Your task to perform on an android device: uninstall "Lyft - Rideshare, Bikes, Scooters & Transit" Image 0: 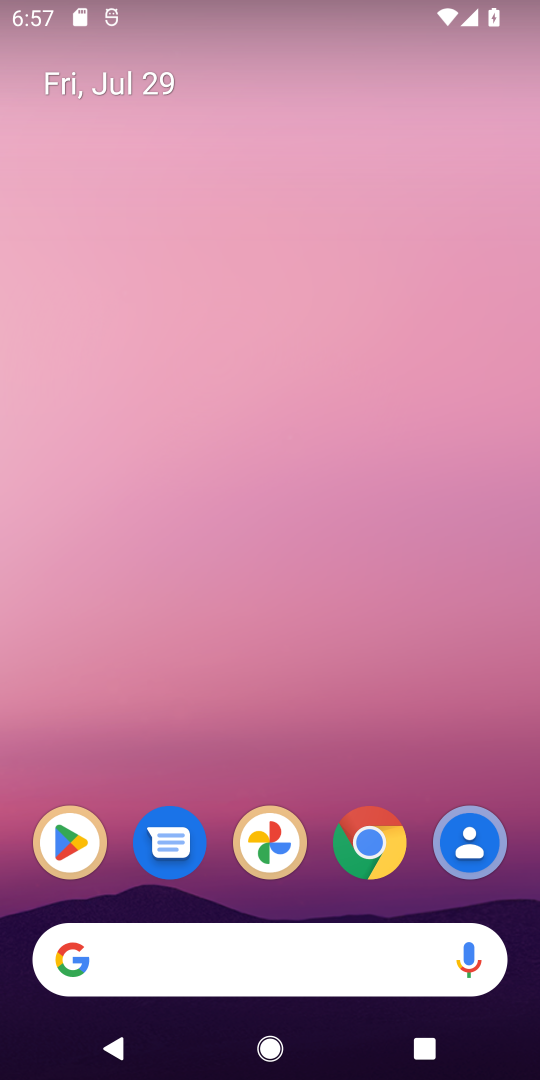
Step 0: drag from (391, 977) to (268, 276)
Your task to perform on an android device: uninstall "Lyft - Rideshare, Bikes, Scooters & Transit" Image 1: 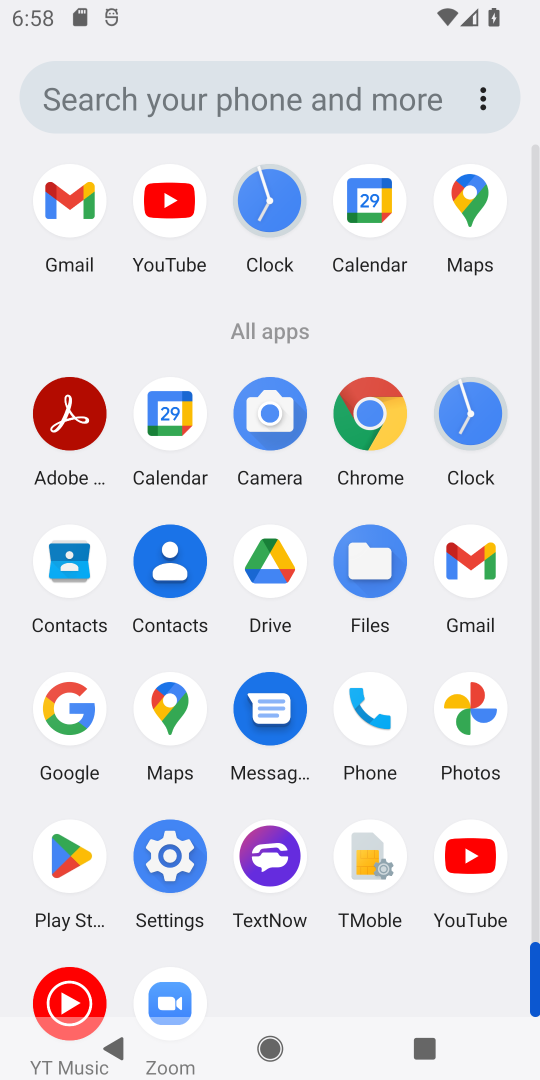
Step 1: drag from (325, 822) to (294, 603)
Your task to perform on an android device: uninstall "Lyft - Rideshare, Bikes, Scooters & Transit" Image 2: 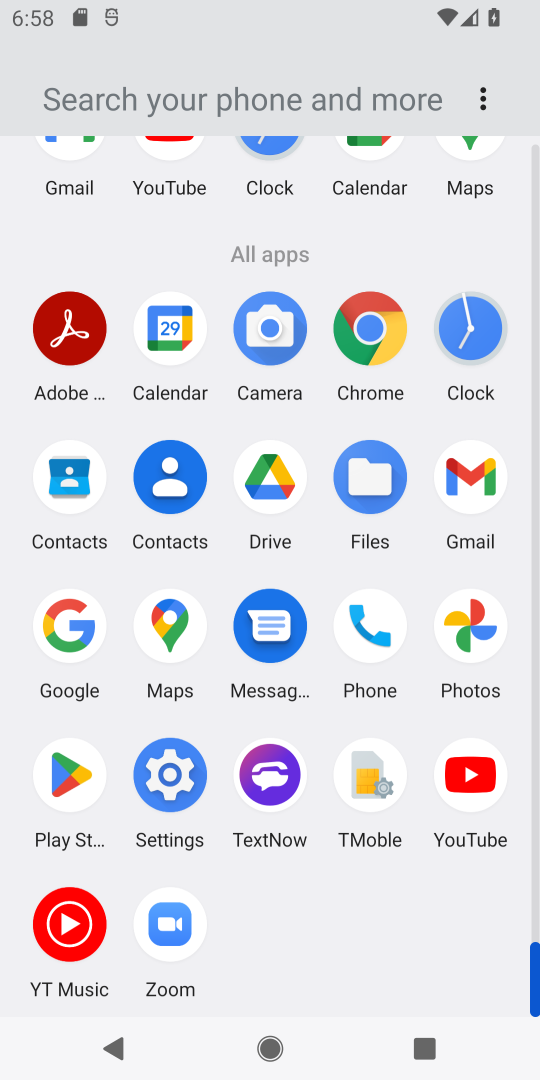
Step 2: drag from (320, 853) to (319, 670)
Your task to perform on an android device: uninstall "Lyft - Rideshare, Bikes, Scooters & Transit" Image 3: 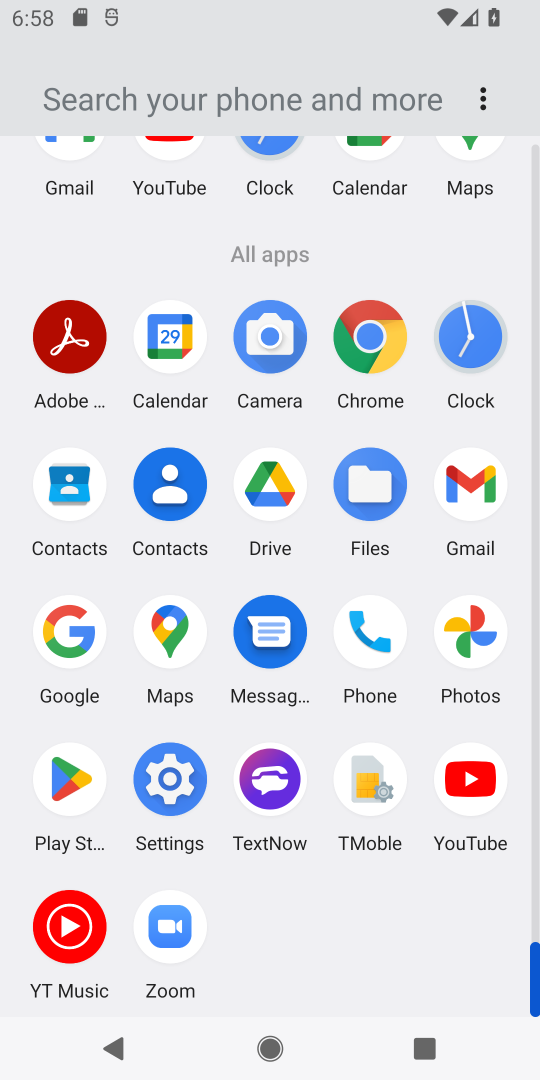
Step 3: click (70, 788)
Your task to perform on an android device: uninstall "Lyft - Rideshare, Bikes, Scooters & Transit" Image 4: 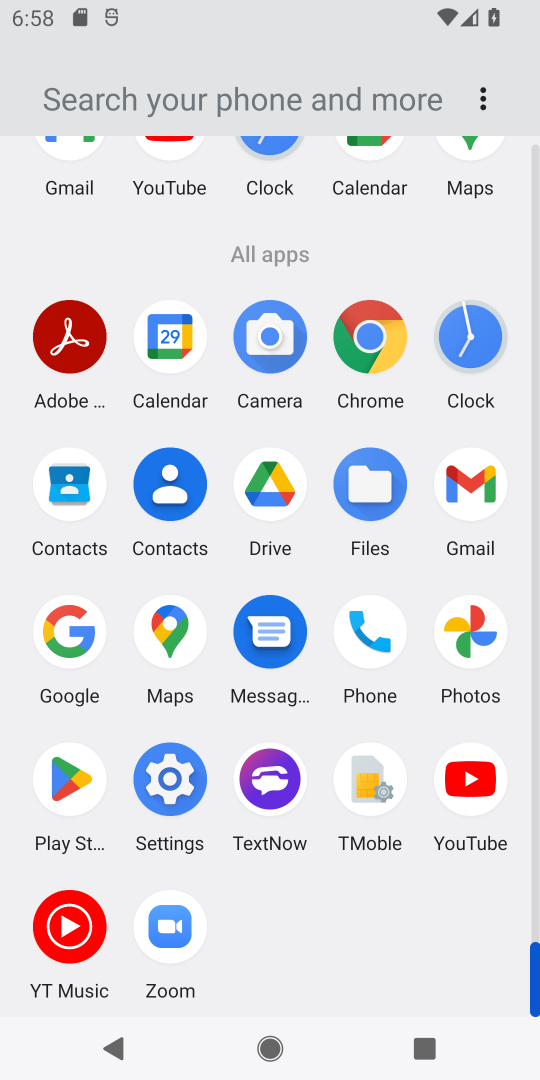
Step 4: click (70, 788)
Your task to perform on an android device: uninstall "Lyft - Rideshare, Bikes, Scooters & Transit" Image 5: 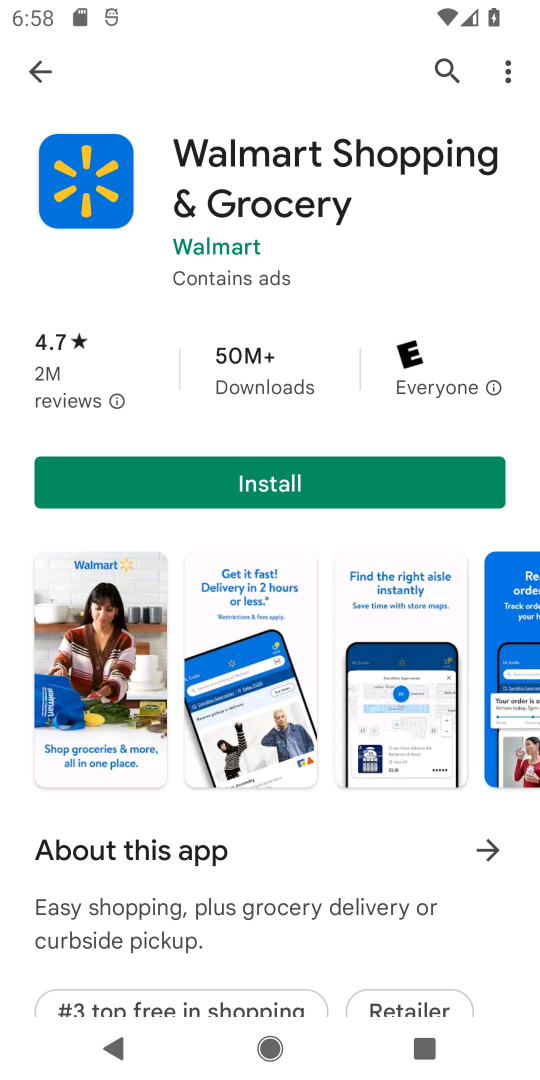
Step 5: click (92, 781)
Your task to perform on an android device: uninstall "Lyft - Rideshare, Bikes, Scooters & Transit" Image 6: 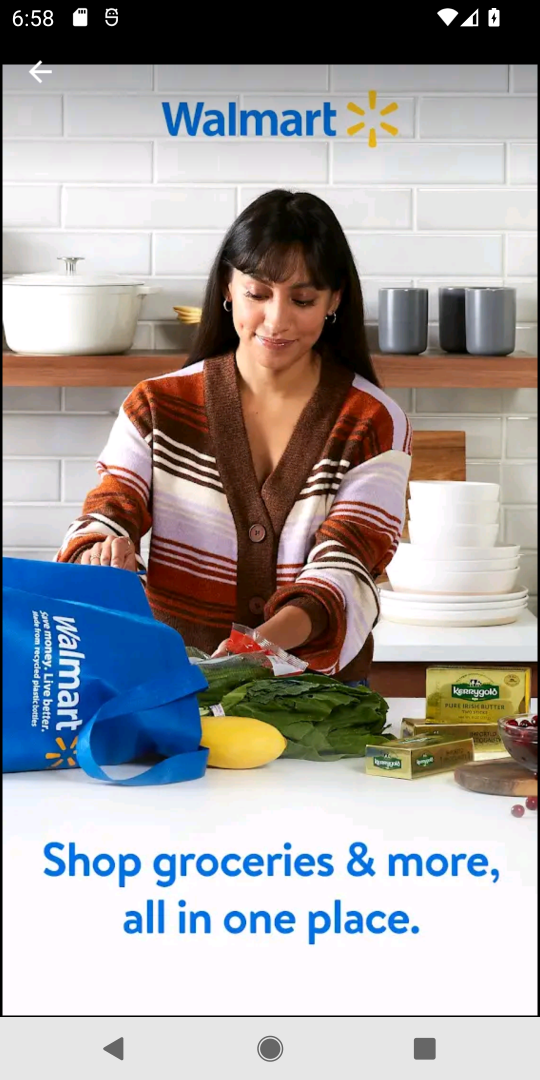
Step 6: click (29, 88)
Your task to perform on an android device: uninstall "Lyft - Rideshare, Bikes, Scooters & Transit" Image 7: 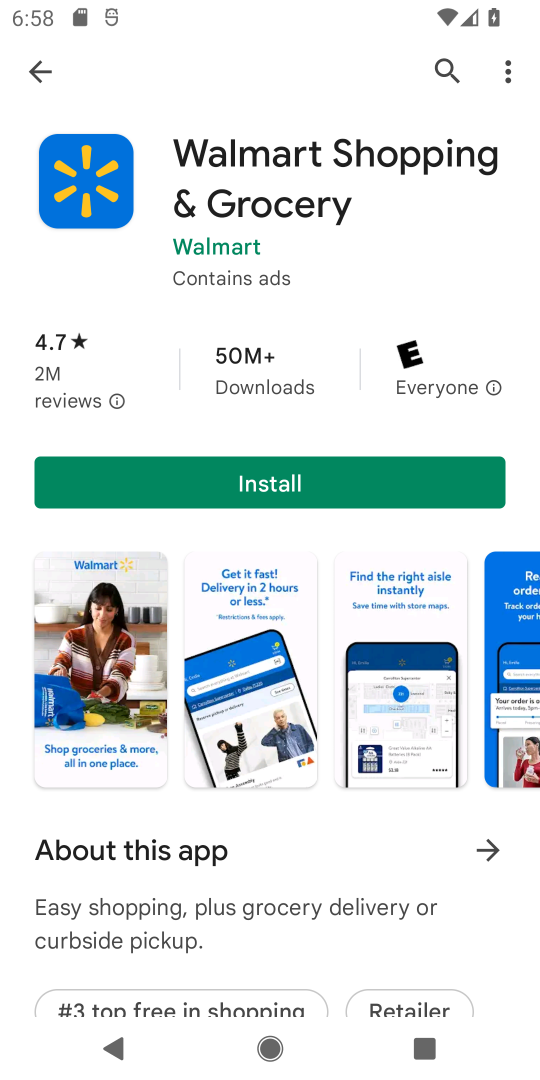
Step 7: click (70, 88)
Your task to perform on an android device: uninstall "Lyft - Rideshare, Bikes, Scooters & Transit" Image 8: 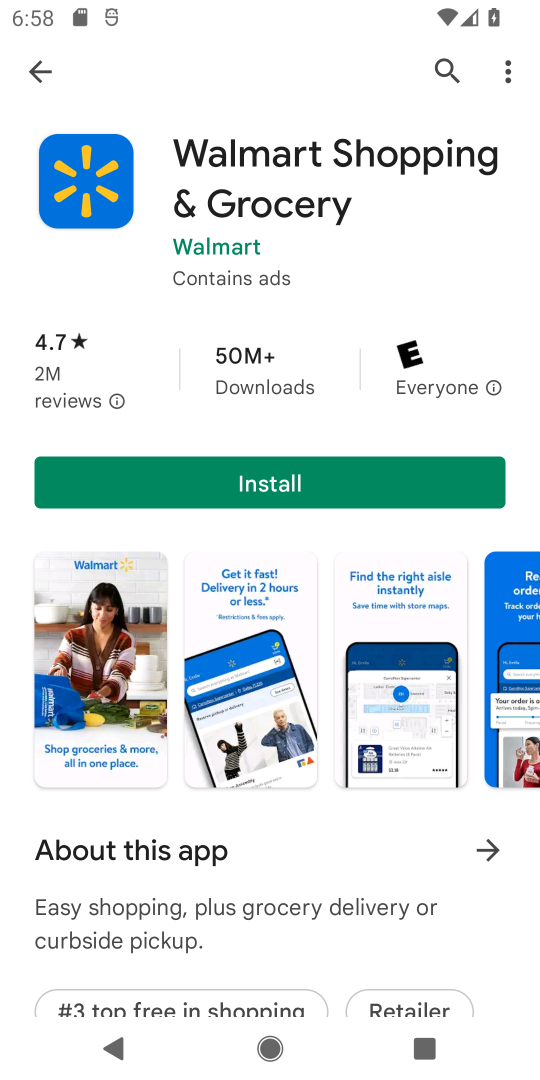
Step 8: click (23, 51)
Your task to perform on an android device: uninstall "Lyft - Rideshare, Bikes, Scooters & Transit" Image 9: 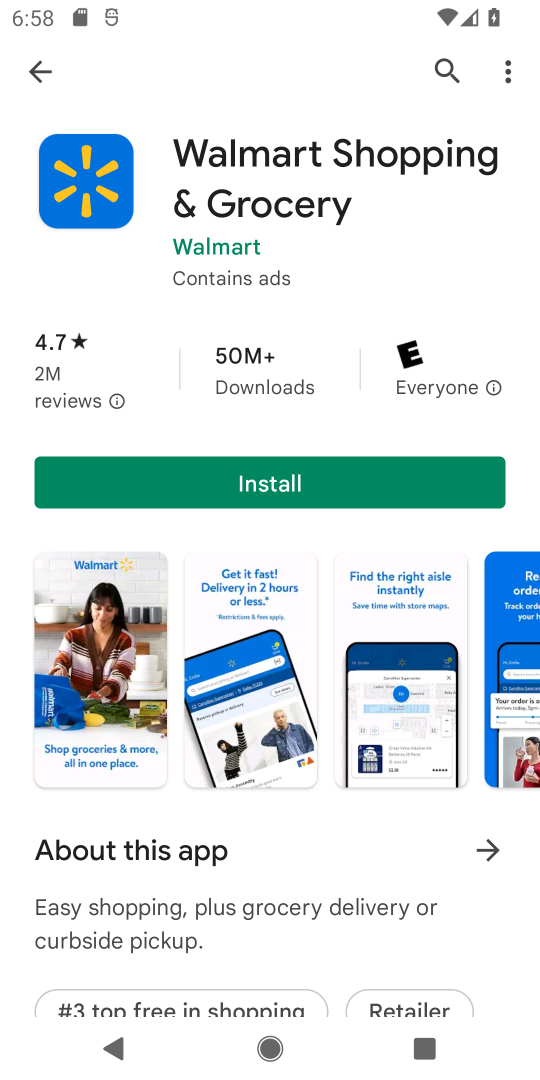
Step 9: click (24, 45)
Your task to perform on an android device: uninstall "Lyft - Rideshare, Bikes, Scooters & Transit" Image 10: 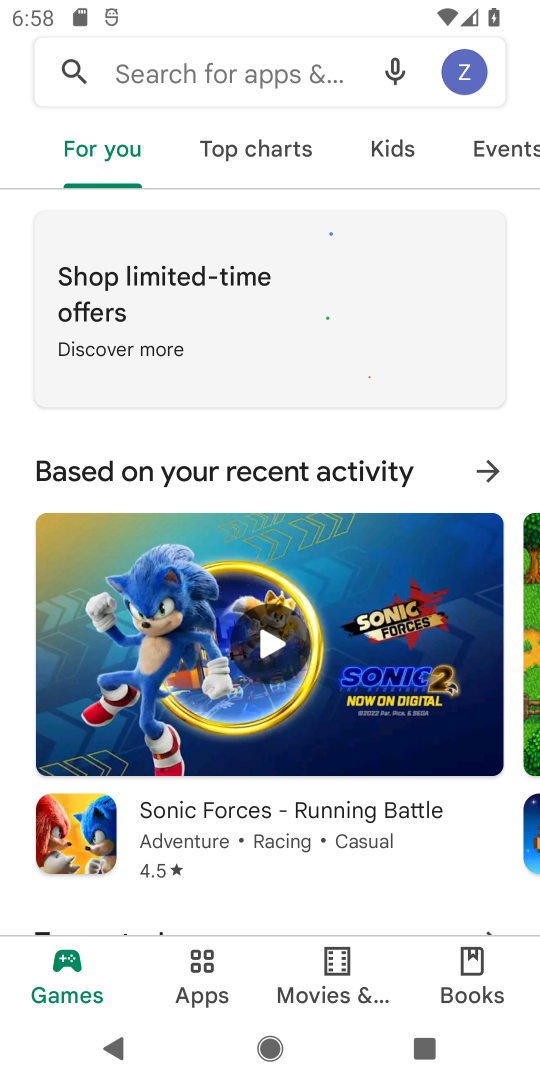
Step 10: click (37, 63)
Your task to perform on an android device: uninstall "Lyft - Rideshare, Bikes, Scooters & Transit" Image 11: 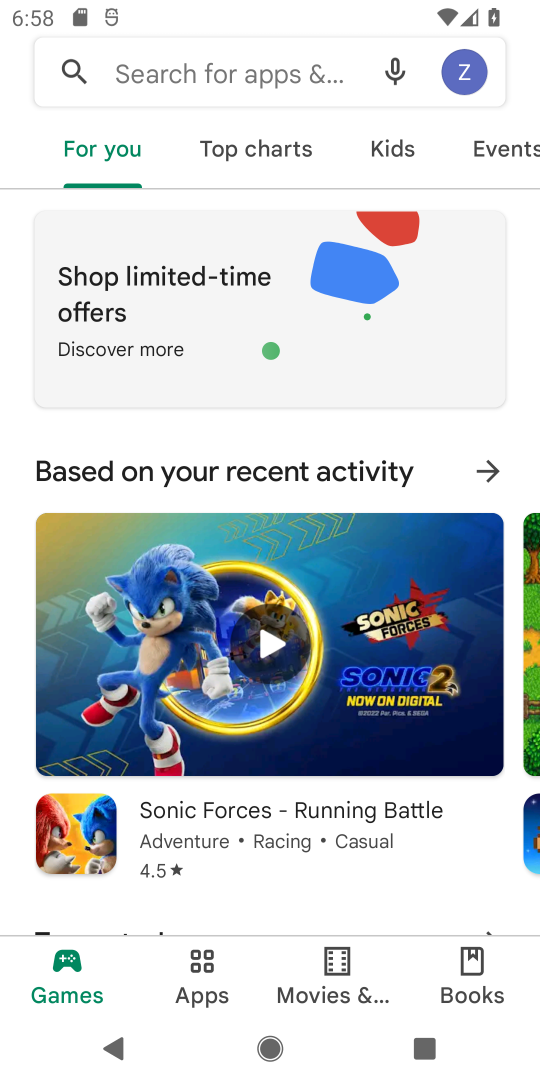
Step 11: click (37, 58)
Your task to perform on an android device: uninstall "Lyft - Rideshare, Bikes, Scooters & Transit" Image 12: 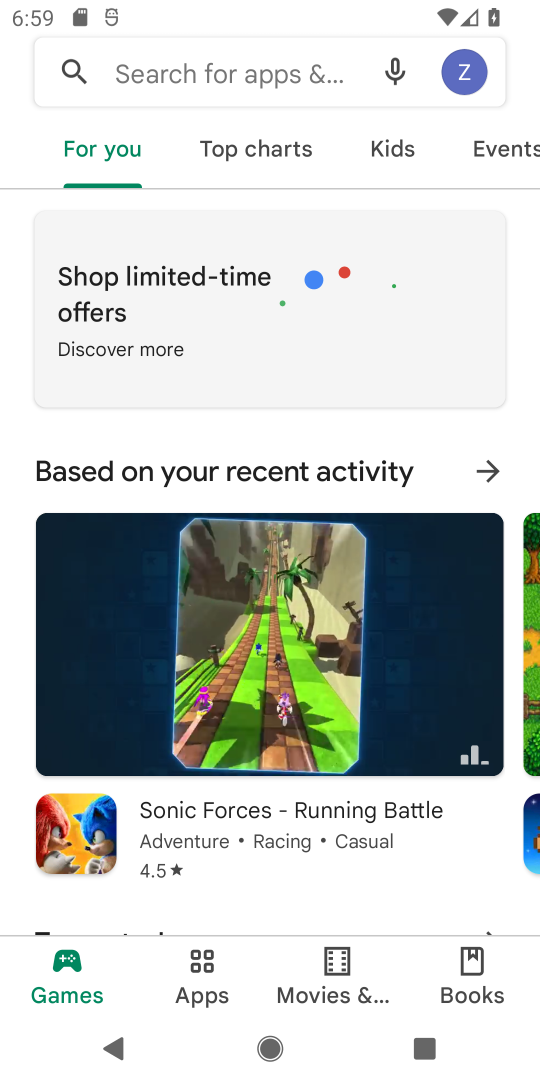
Step 12: click (187, 83)
Your task to perform on an android device: uninstall "Lyft - Rideshare, Bikes, Scooters & Transit" Image 13: 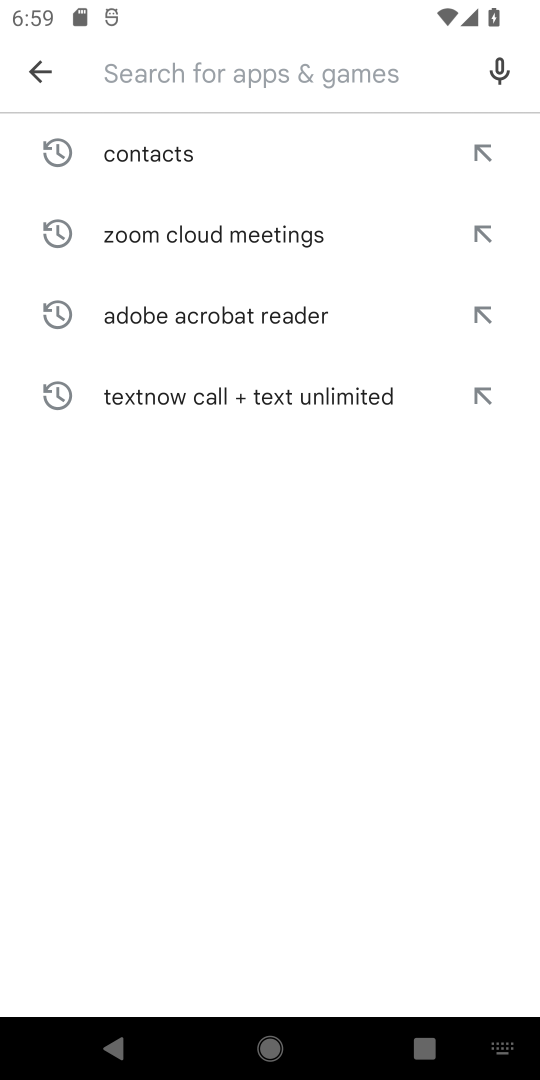
Step 13: type "lyft - rideshree, bikes, scooters & transit"
Your task to perform on an android device: uninstall "Lyft - Rideshare, Bikes, Scooters & Transit" Image 14: 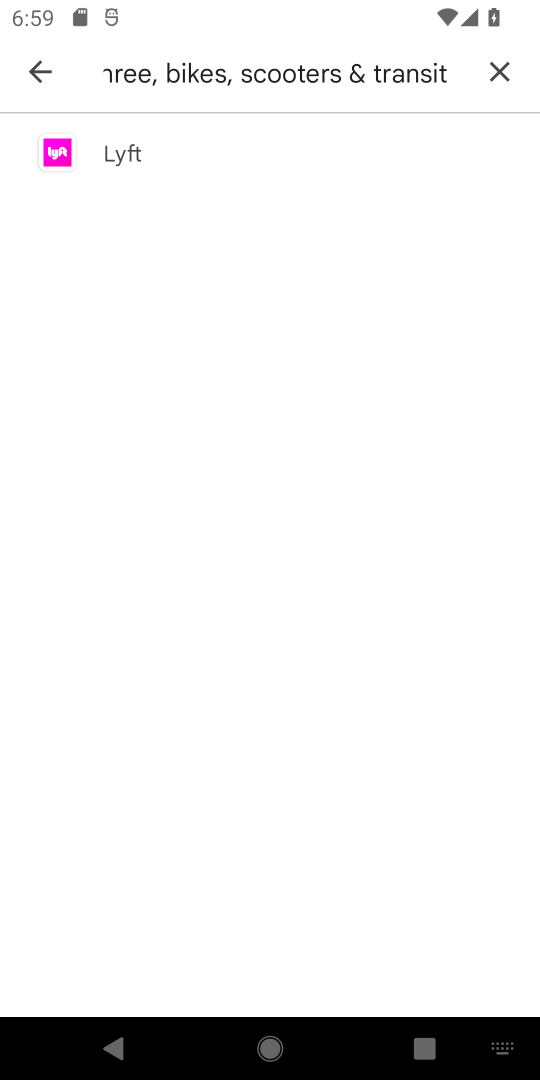
Step 14: click (98, 151)
Your task to perform on an android device: uninstall "Lyft - Rideshare, Bikes, Scooters & Transit" Image 15: 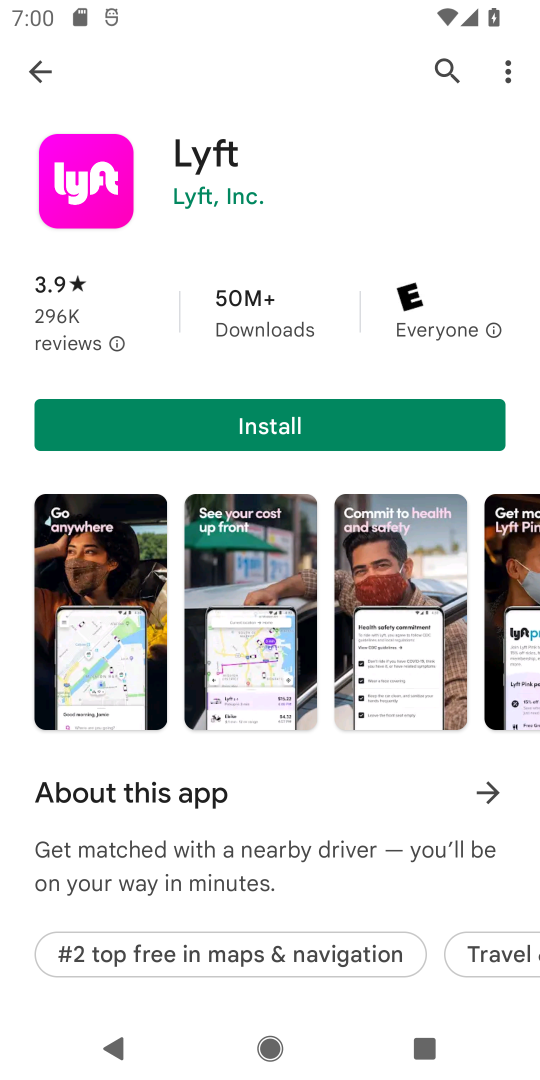
Step 15: click (265, 430)
Your task to perform on an android device: uninstall "Lyft - Rideshare, Bikes, Scooters & Transit" Image 16: 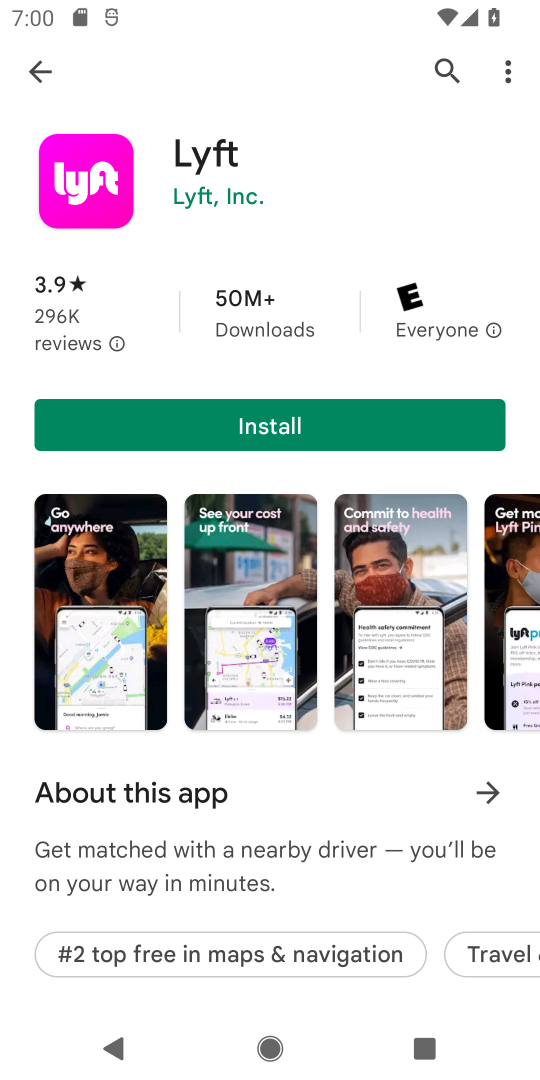
Step 16: click (270, 438)
Your task to perform on an android device: uninstall "Lyft - Rideshare, Bikes, Scooters & Transit" Image 17: 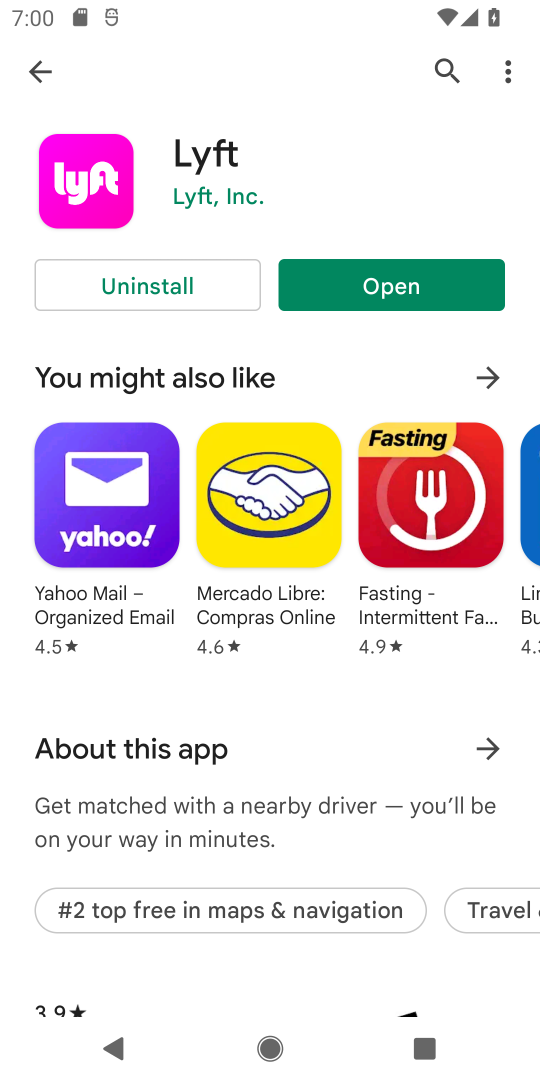
Step 17: click (362, 284)
Your task to perform on an android device: uninstall "Lyft - Rideshare, Bikes, Scooters & Transit" Image 18: 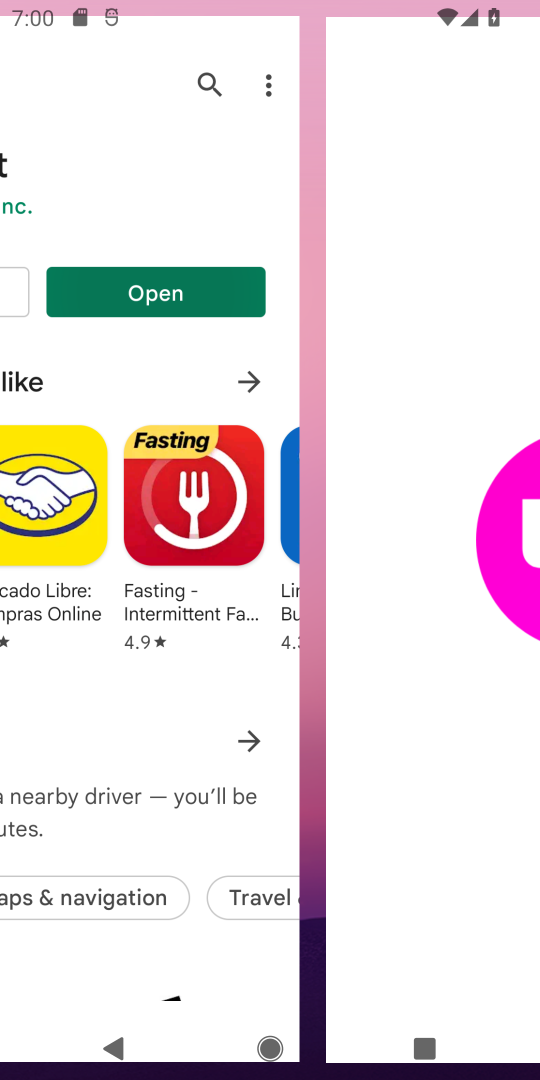
Step 18: click (216, 303)
Your task to perform on an android device: uninstall "Lyft - Rideshare, Bikes, Scooters & Transit" Image 19: 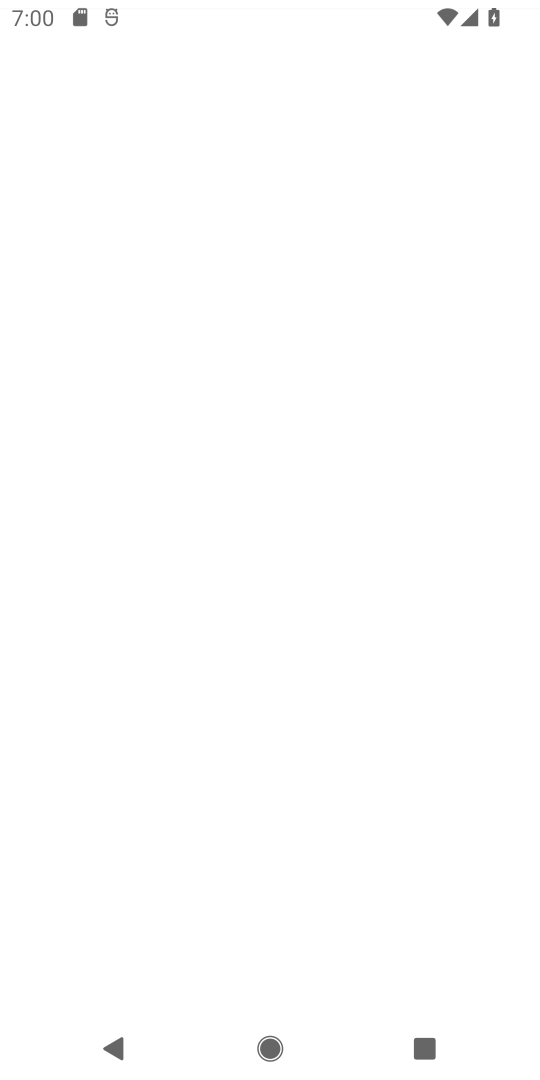
Step 19: press back button
Your task to perform on an android device: uninstall "Lyft - Rideshare, Bikes, Scooters & Transit" Image 20: 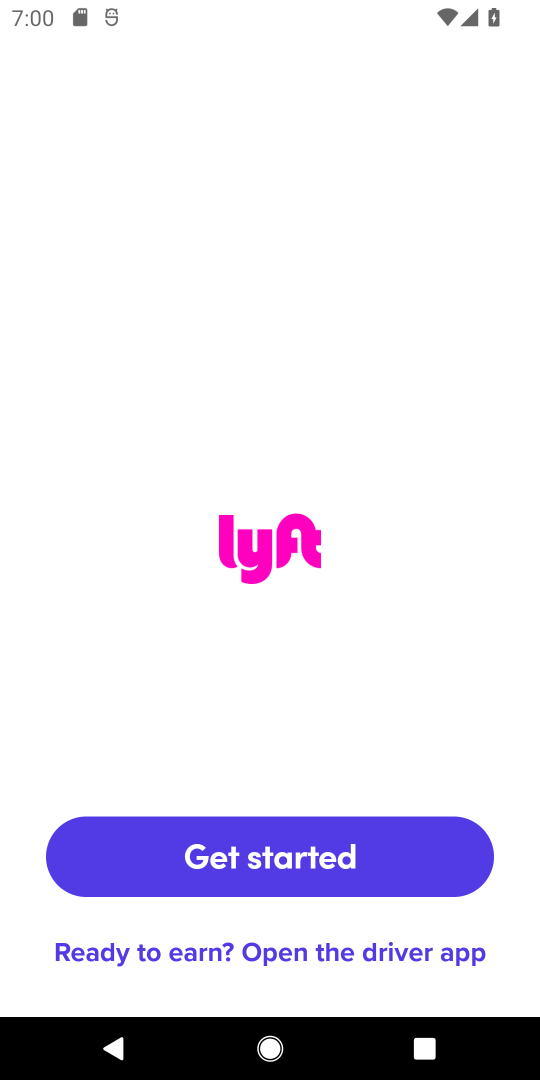
Step 20: press back button
Your task to perform on an android device: uninstall "Lyft - Rideshare, Bikes, Scooters & Transit" Image 21: 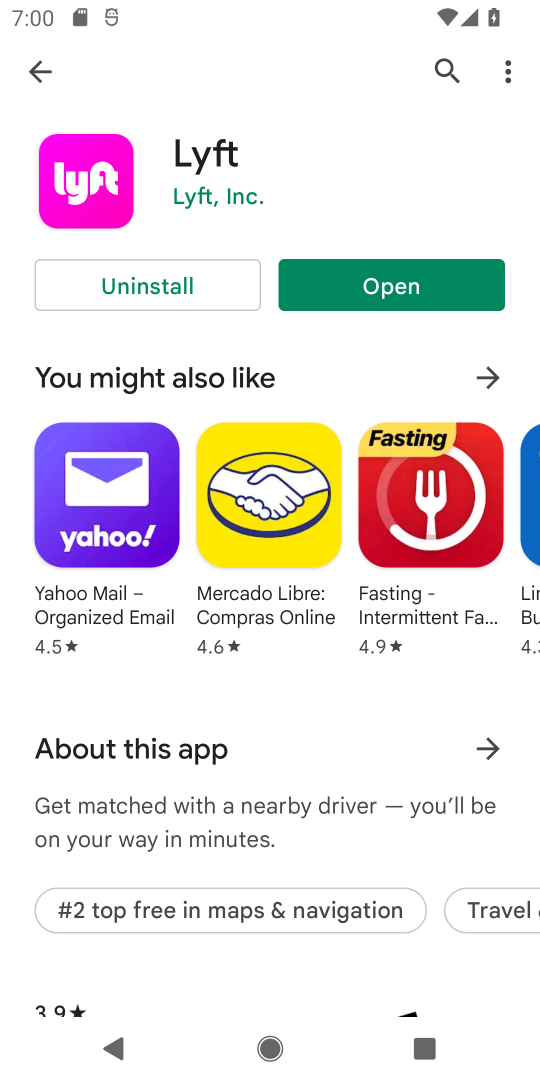
Step 21: click (142, 294)
Your task to perform on an android device: uninstall "Lyft - Rideshare, Bikes, Scooters & Transit" Image 22: 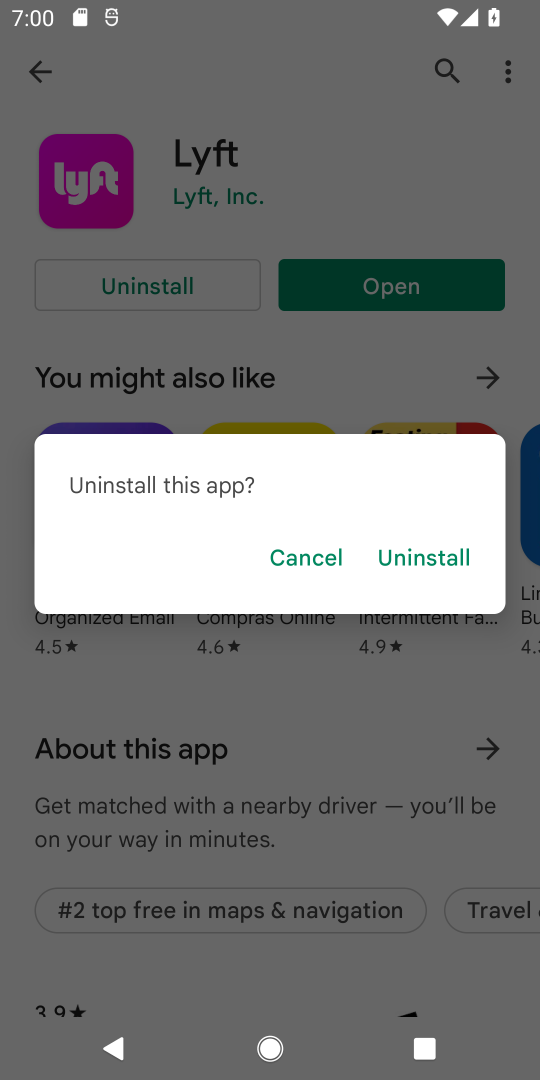
Step 22: click (408, 556)
Your task to perform on an android device: uninstall "Lyft - Rideshare, Bikes, Scooters & Transit" Image 23: 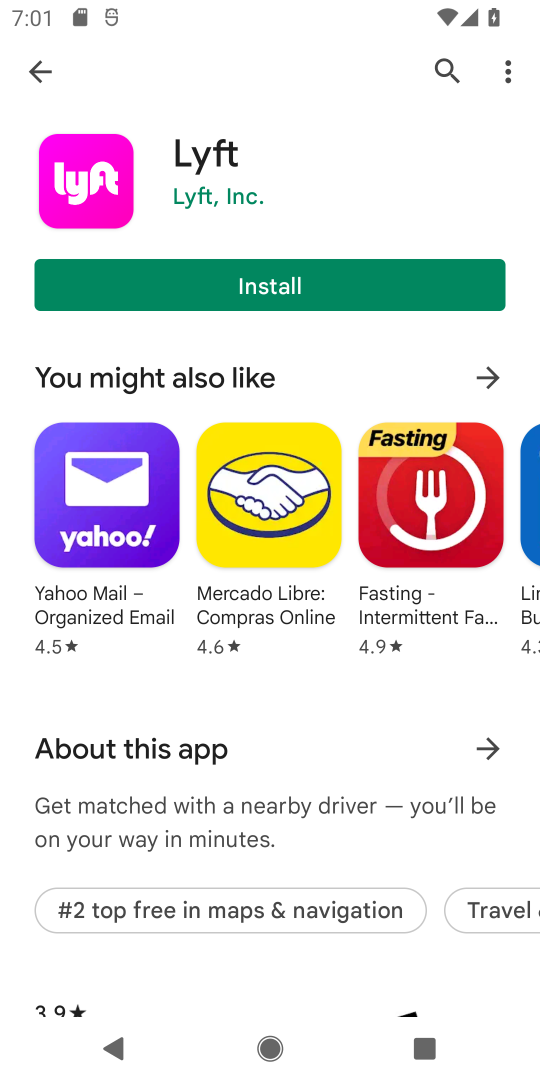
Step 23: task complete